Your task to perform on an android device: When is my next appointment? Image 0: 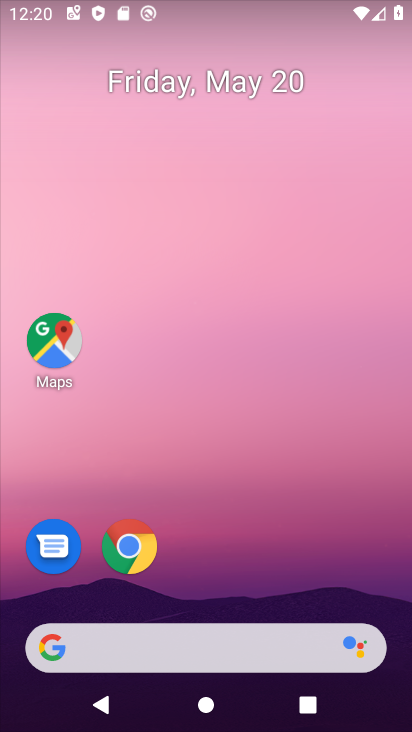
Step 0: drag from (274, 554) to (278, 61)
Your task to perform on an android device: When is my next appointment? Image 1: 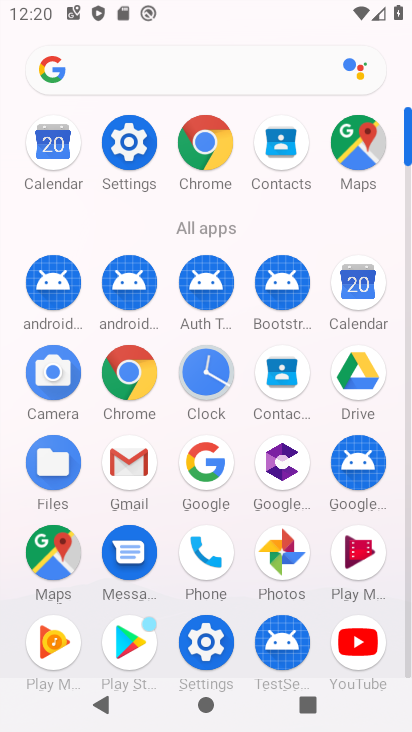
Step 1: click (43, 141)
Your task to perform on an android device: When is my next appointment? Image 2: 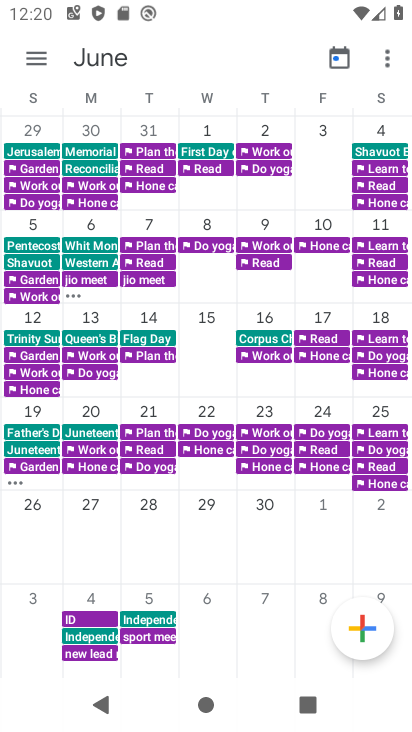
Step 2: drag from (33, 305) to (402, 357)
Your task to perform on an android device: When is my next appointment? Image 3: 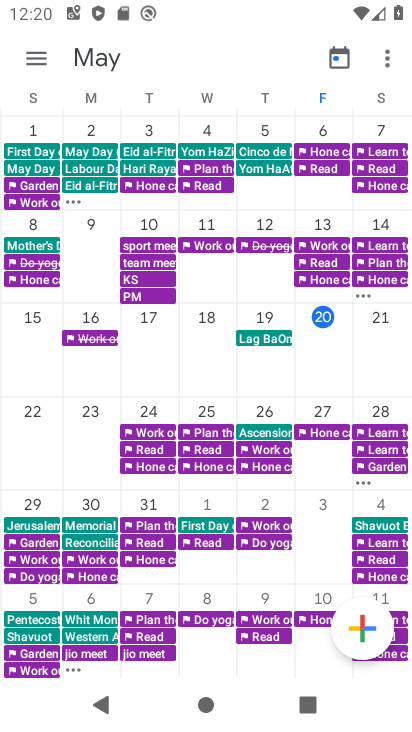
Step 3: click (320, 338)
Your task to perform on an android device: When is my next appointment? Image 4: 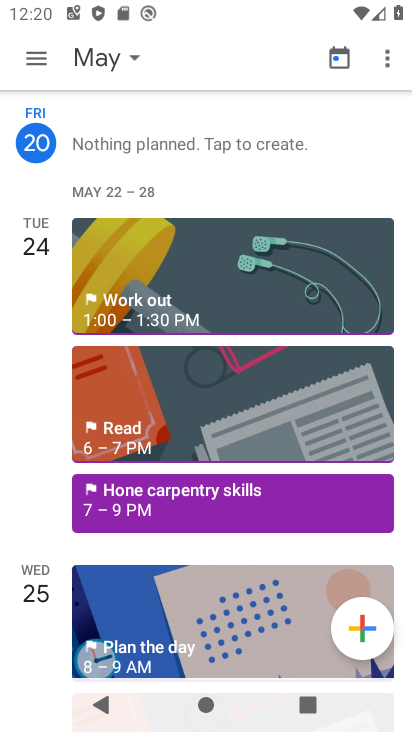
Step 4: task complete